Your task to perform on an android device: Clear the cart on ebay. Image 0: 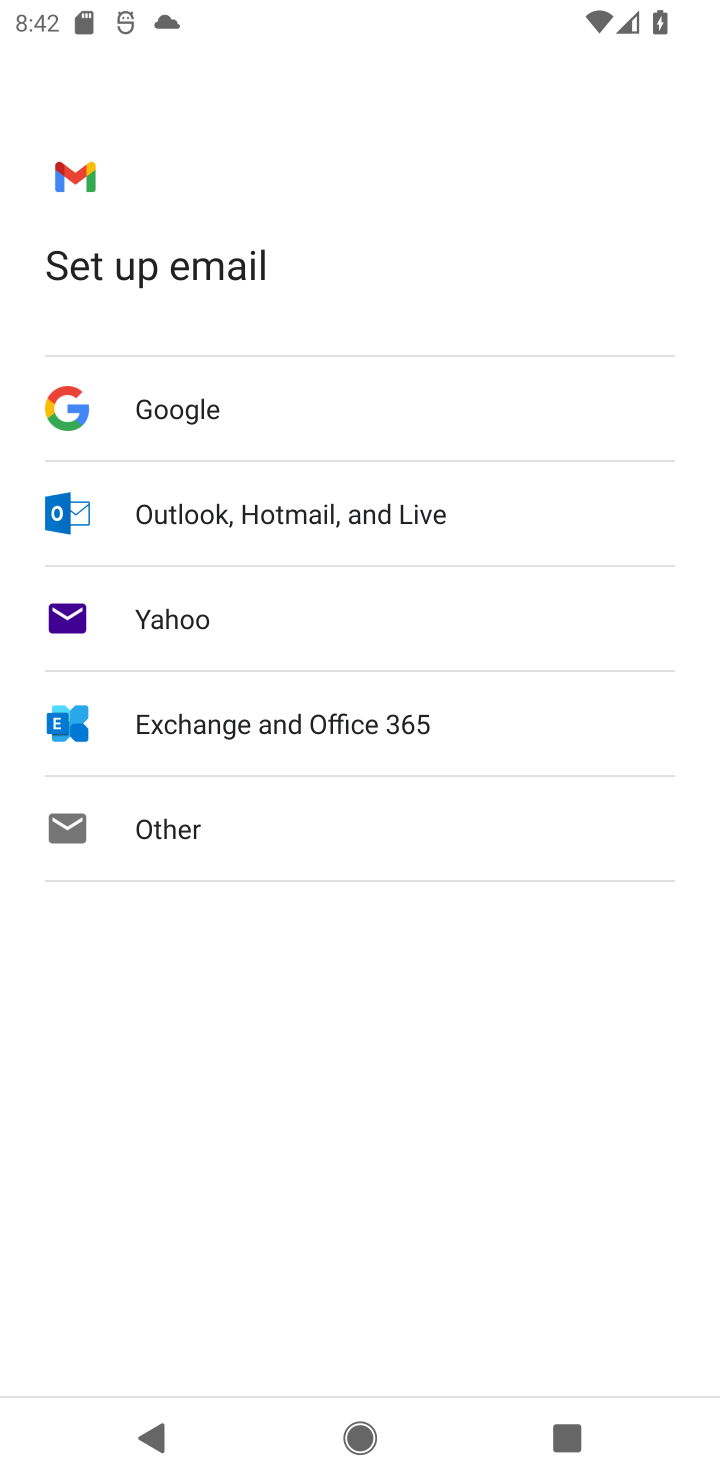
Step 0: press home button
Your task to perform on an android device: Clear the cart on ebay. Image 1: 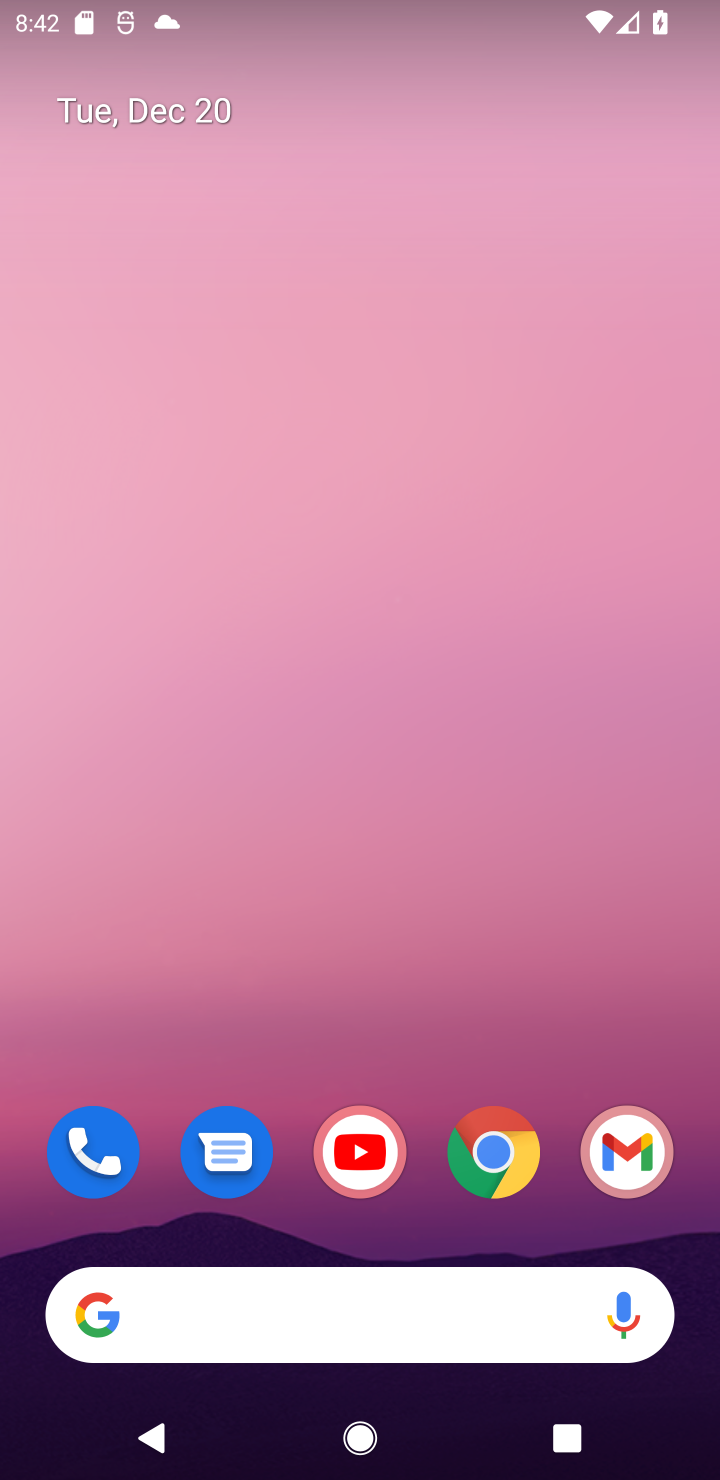
Step 1: click (529, 1147)
Your task to perform on an android device: Clear the cart on ebay. Image 2: 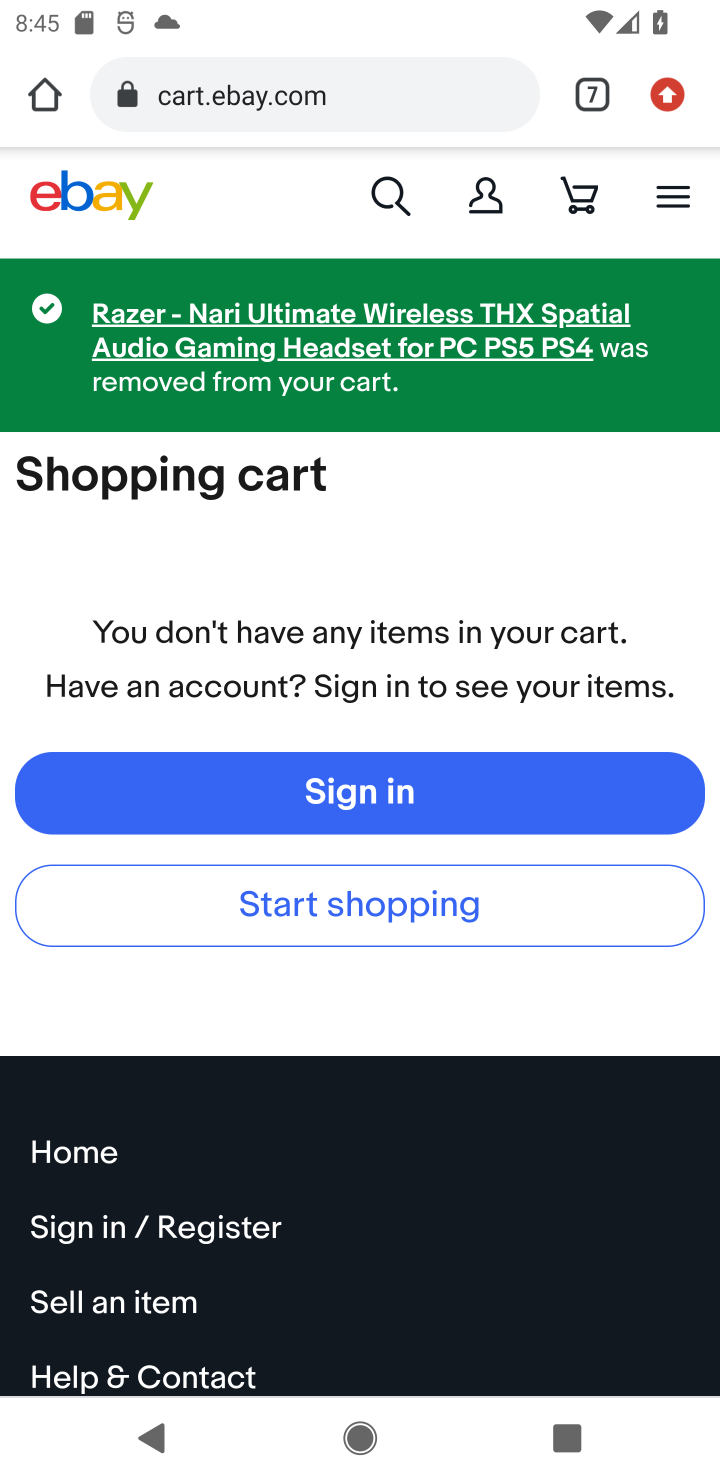
Step 2: task complete